Your task to perform on an android device: change the clock style Image 0: 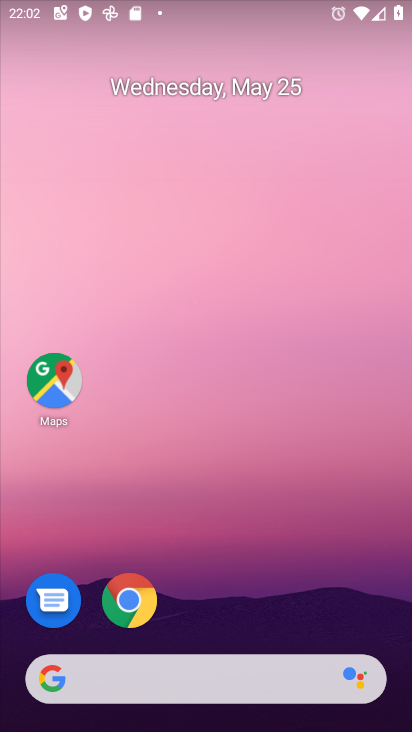
Step 0: drag from (339, 631) to (340, 184)
Your task to perform on an android device: change the clock style Image 1: 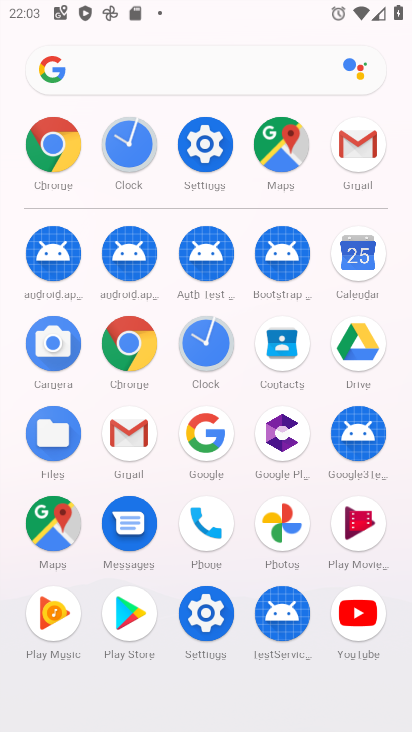
Step 1: click (229, 339)
Your task to perform on an android device: change the clock style Image 2: 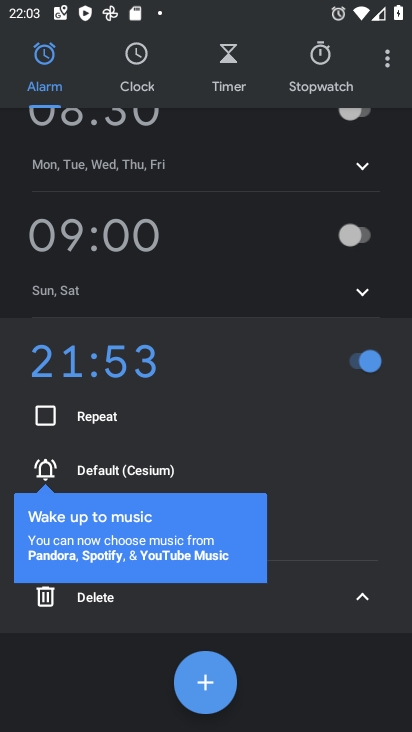
Step 2: task complete